Your task to perform on an android device: toggle location history Image 0: 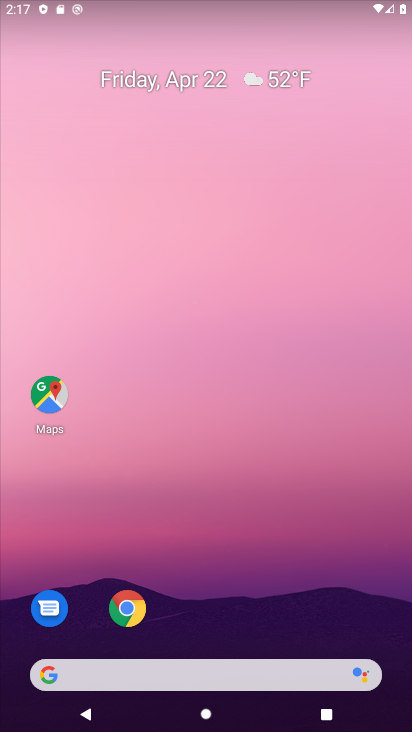
Step 0: drag from (240, 618) to (203, 131)
Your task to perform on an android device: toggle location history Image 1: 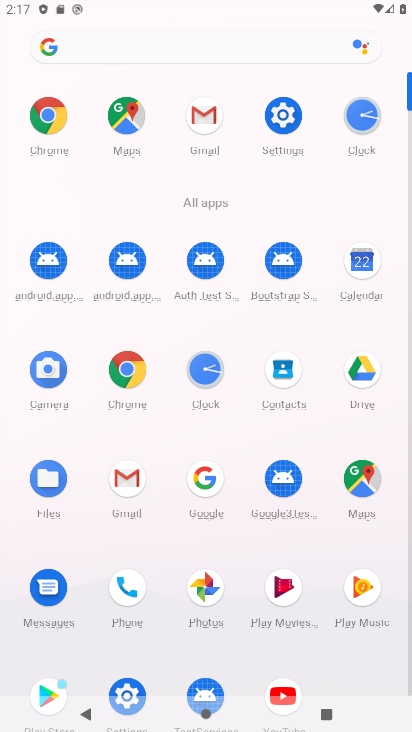
Step 1: click (292, 122)
Your task to perform on an android device: toggle location history Image 2: 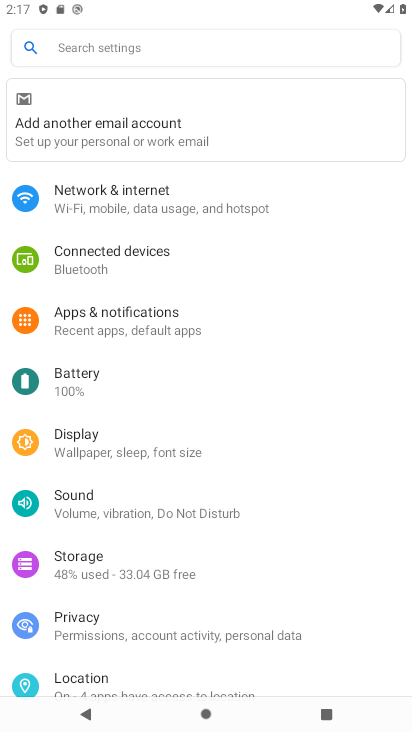
Step 2: click (147, 678)
Your task to perform on an android device: toggle location history Image 3: 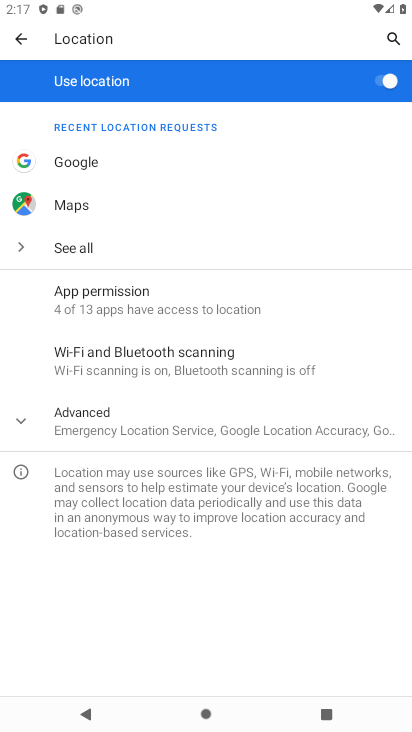
Step 3: click (153, 424)
Your task to perform on an android device: toggle location history Image 4: 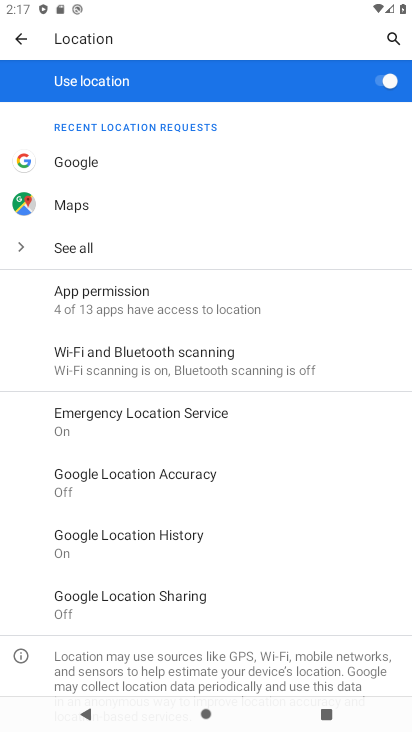
Step 4: click (168, 540)
Your task to perform on an android device: toggle location history Image 5: 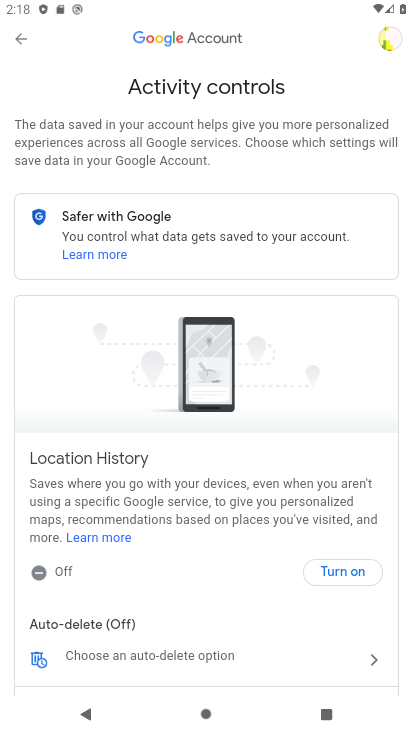
Step 5: click (338, 566)
Your task to perform on an android device: toggle location history Image 6: 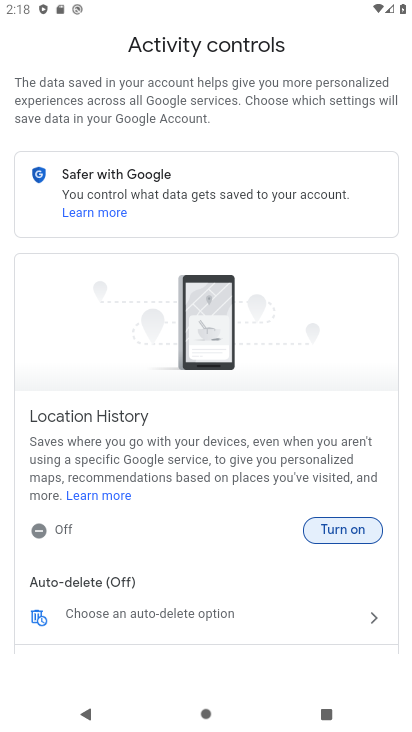
Step 6: click (338, 566)
Your task to perform on an android device: toggle location history Image 7: 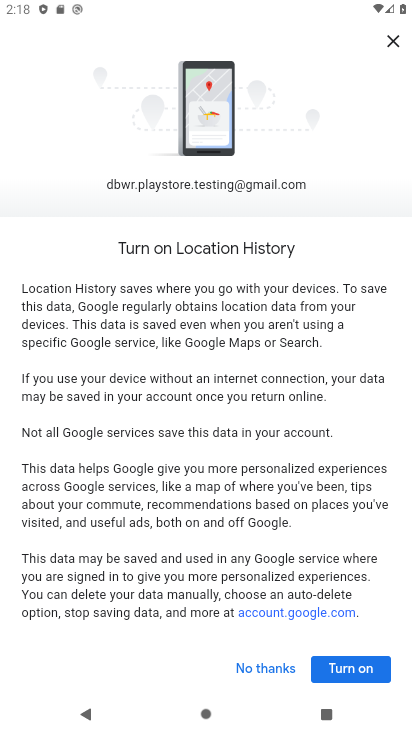
Step 7: click (365, 664)
Your task to perform on an android device: toggle location history Image 8: 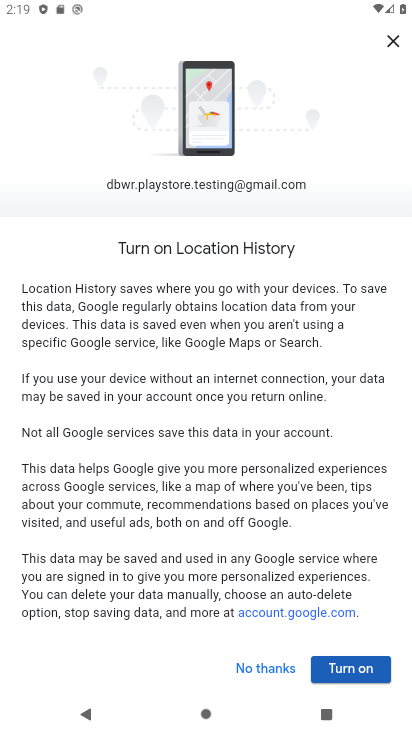
Step 8: click (351, 671)
Your task to perform on an android device: toggle location history Image 9: 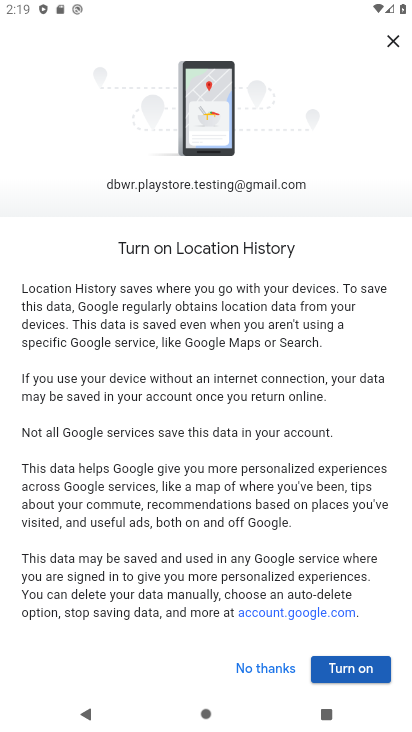
Step 9: click (349, 670)
Your task to perform on an android device: toggle location history Image 10: 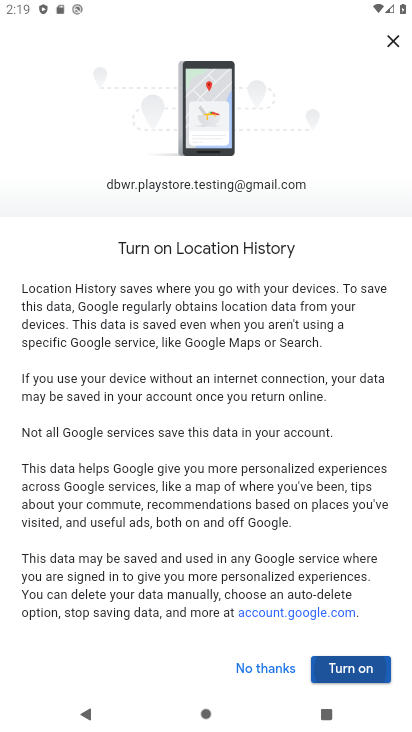
Step 10: click (349, 670)
Your task to perform on an android device: toggle location history Image 11: 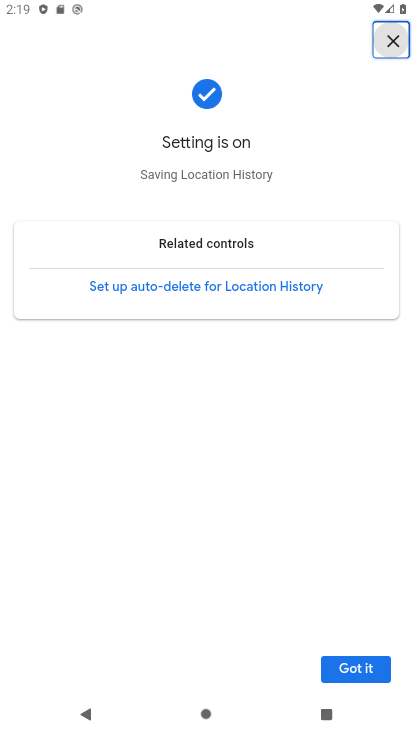
Step 11: task complete